Your task to perform on an android device: Go to Yahoo.com Image 0: 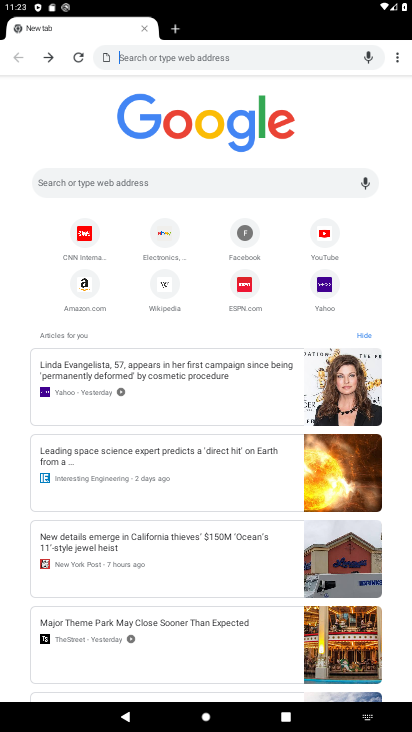
Step 0: click (331, 287)
Your task to perform on an android device: Go to Yahoo.com Image 1: 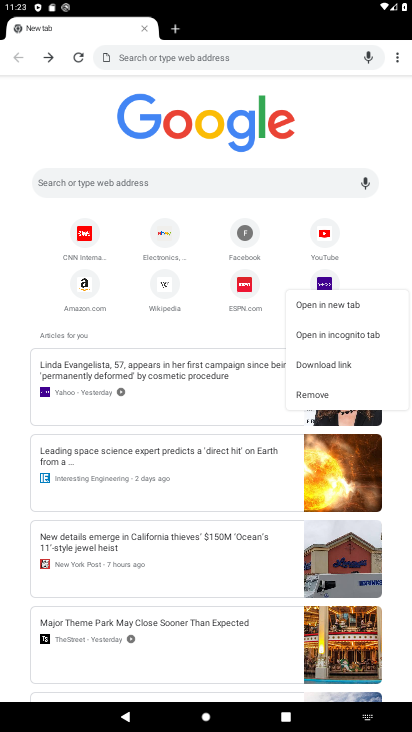
Step 1: click (325, 282)
Your task to perform on an android device: Go to Yahoo.com Image 2: 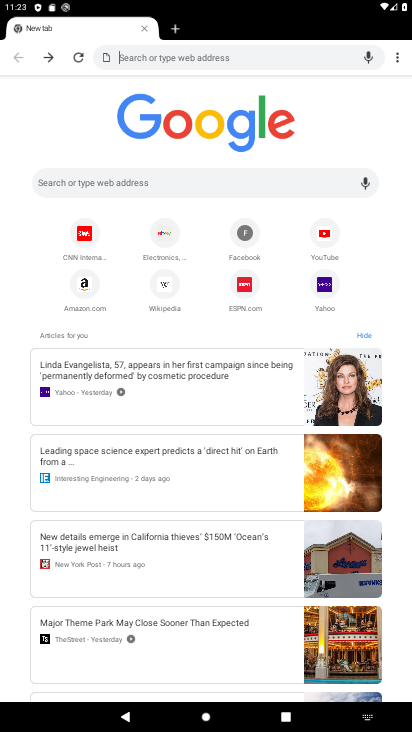
Step 2: click (325, 282)
Your task to perform on an android device: Go to Yahoo.com Image 3: 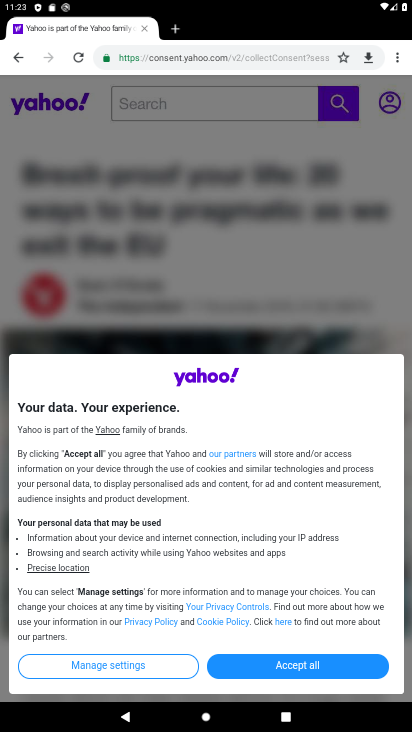
Step 3: task complete